Your task to perform on an android device: check the backup settings in the google photos Image 0: 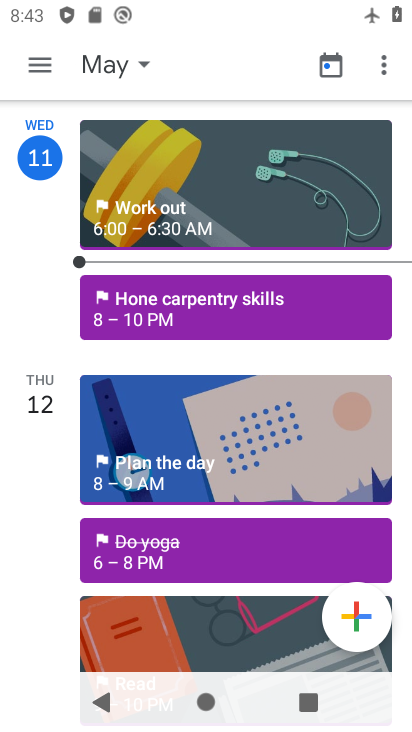
Step 0: press home button
Your task to perform on an android device: check the backup settings in the google photos Image 1: 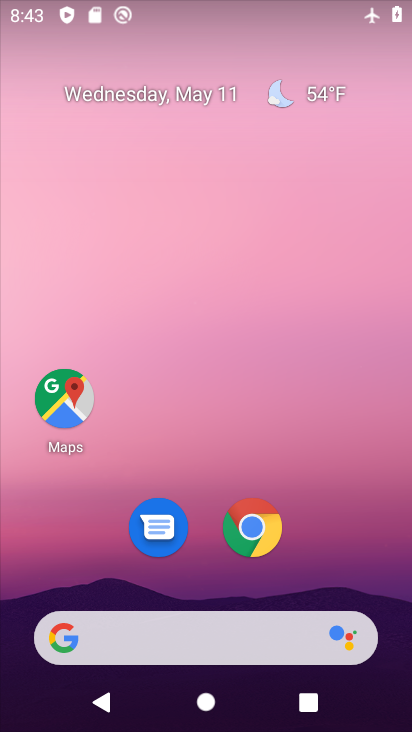
Step 1: drag from (300, 548) to (265, 164)
Your task to perform on an android device: check the backup settings in the google photos Image 2: 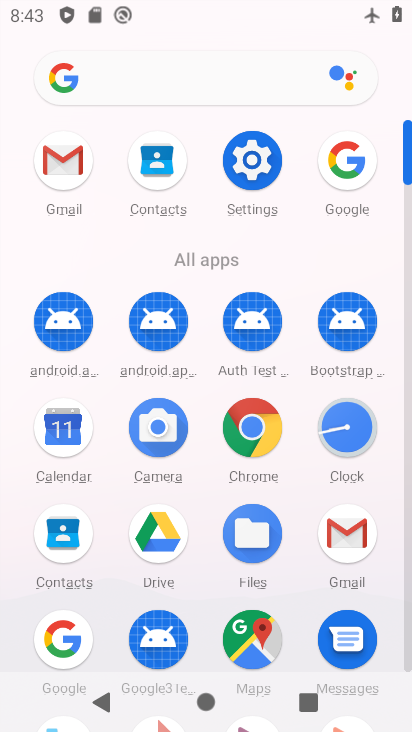
Step 2: drag from (287, 440) to (258, 230)
Your task to perform on an android device: check the backup settings in the google photos Image 3: 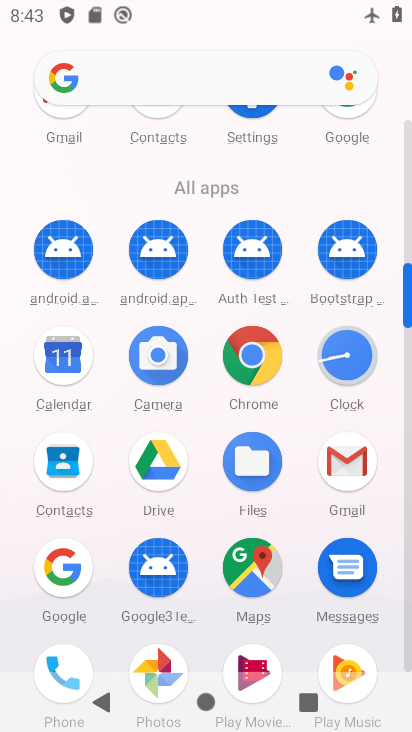
Step 3: click (156, 655)
Your task to perform on an android device: check the backup settings in the google photos Image 4: 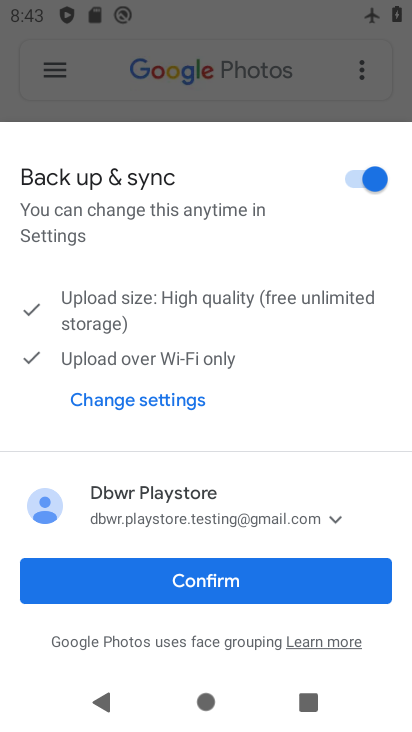
Step 4: click (246, 569)
Your task to perform on an android device: check the backup settings in the google photos Image 5: 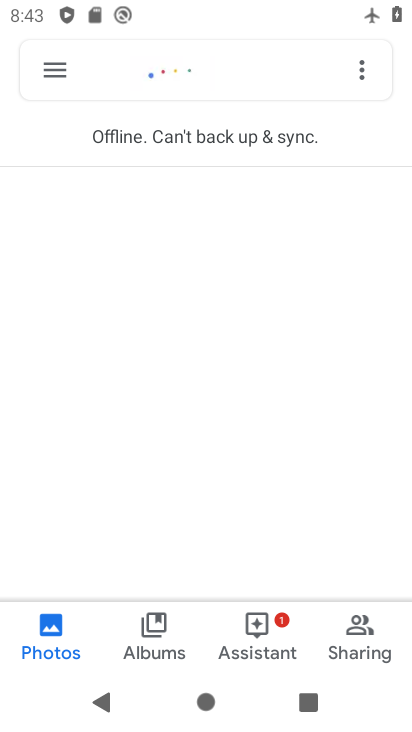
Step 5: click (61, 77)
Your task to perform on an android device: check the backup settings in the google photos Image 6: 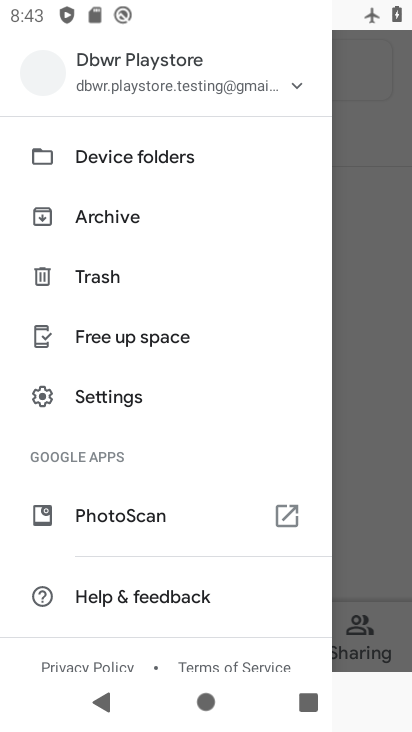
Step 6: drag from (145, 598) to (127, 453)
Your task to perform on an android device: check the backup settings in the google photos Image 7: 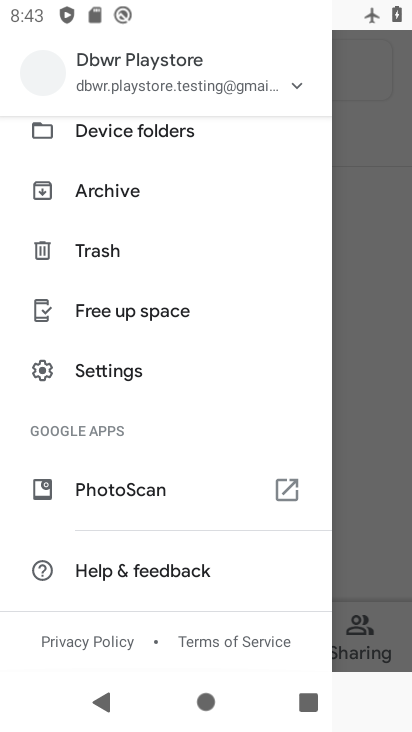
Step 7: click (121, 373)
Your task to perform on an android device: check the backup settings in the google photos Image 8: 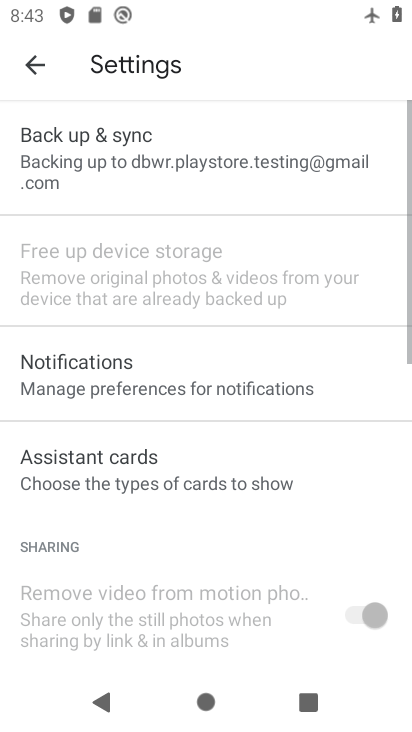
Step 8: click (166, 154)
Your task to perform on an android device: check the backup settings in the google photos Image 9: 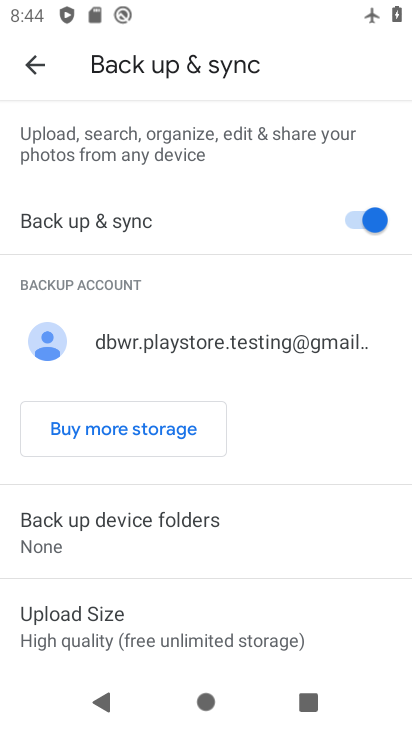
Step 9: task complete